Your task to perform on an android device: turn off location history Image 0: 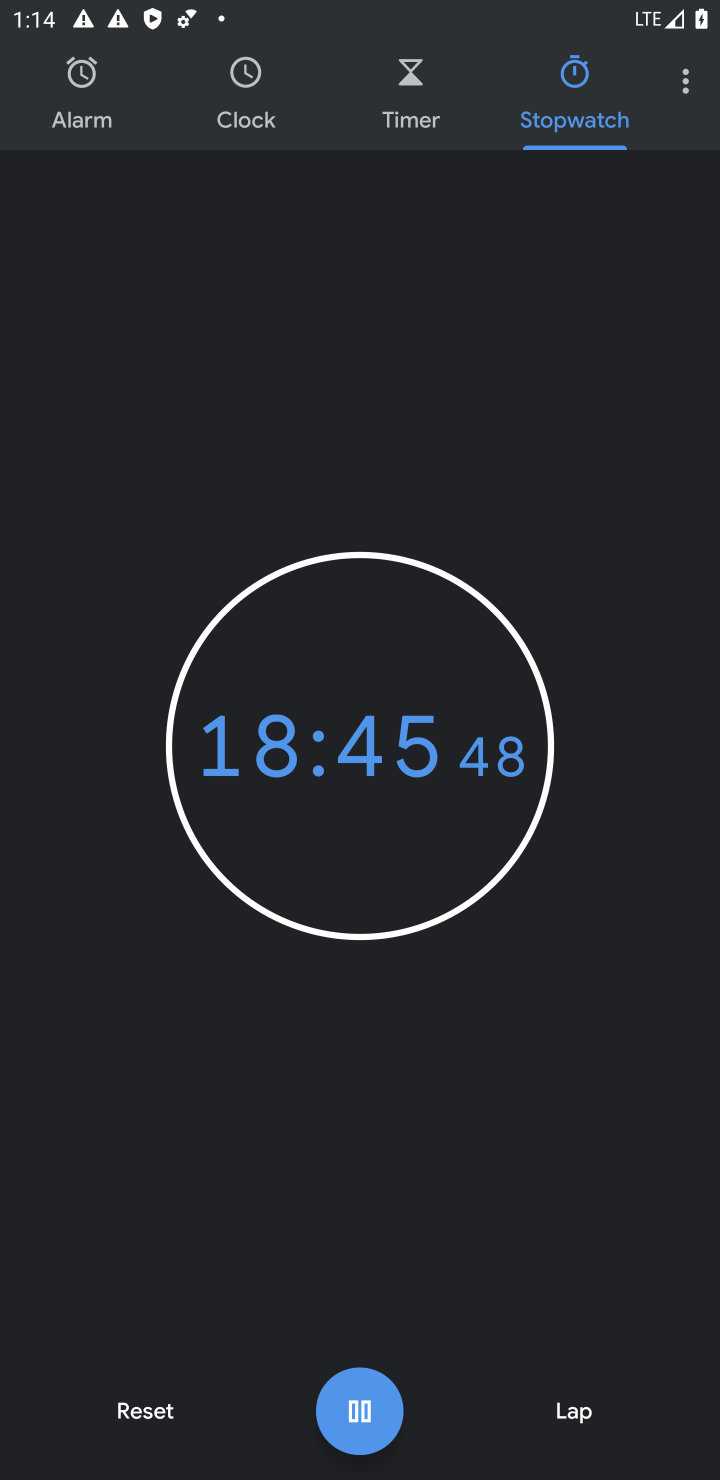
Step 0: press home button
Your task to perform on an android device: turn off location history Image 1: 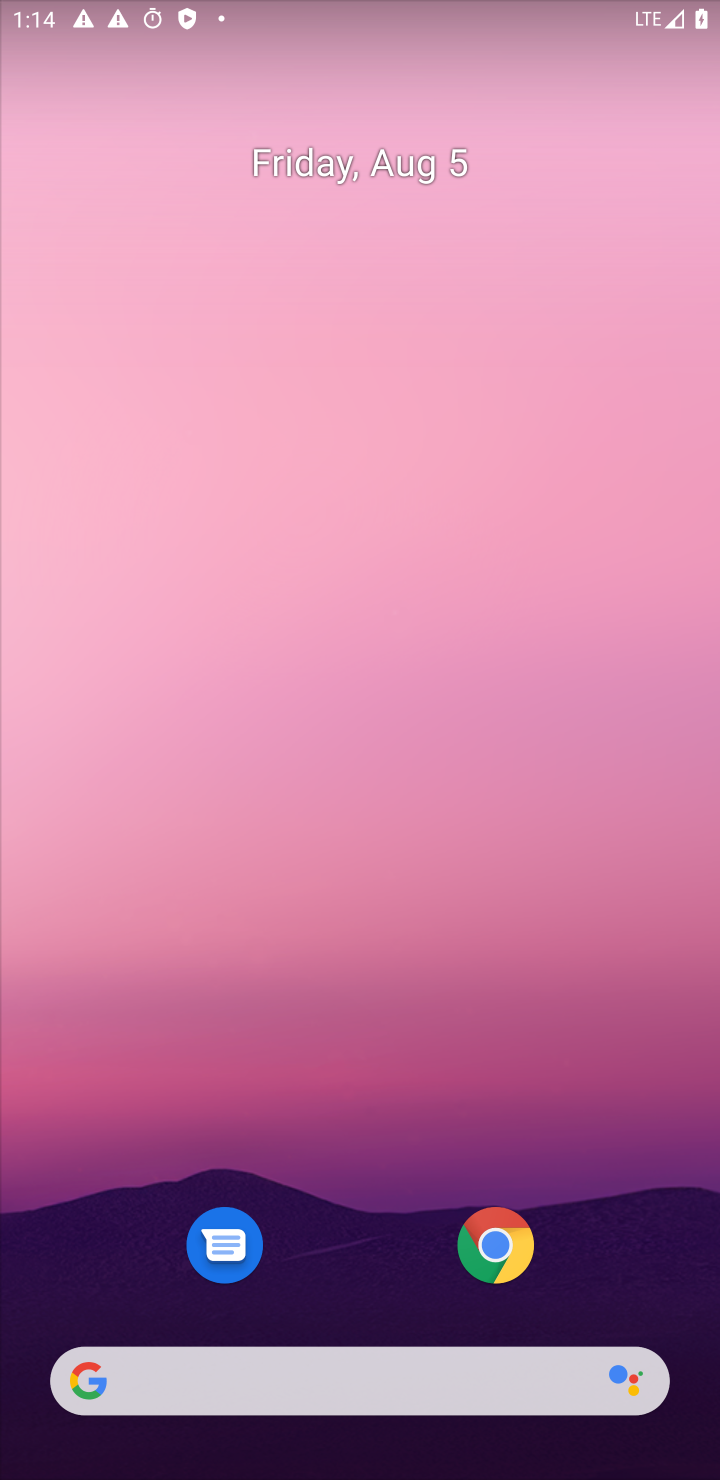
Step 1: drag from (412, 517) to (435, 448)
Your task to perform on an android device: turn off location history Image 2: 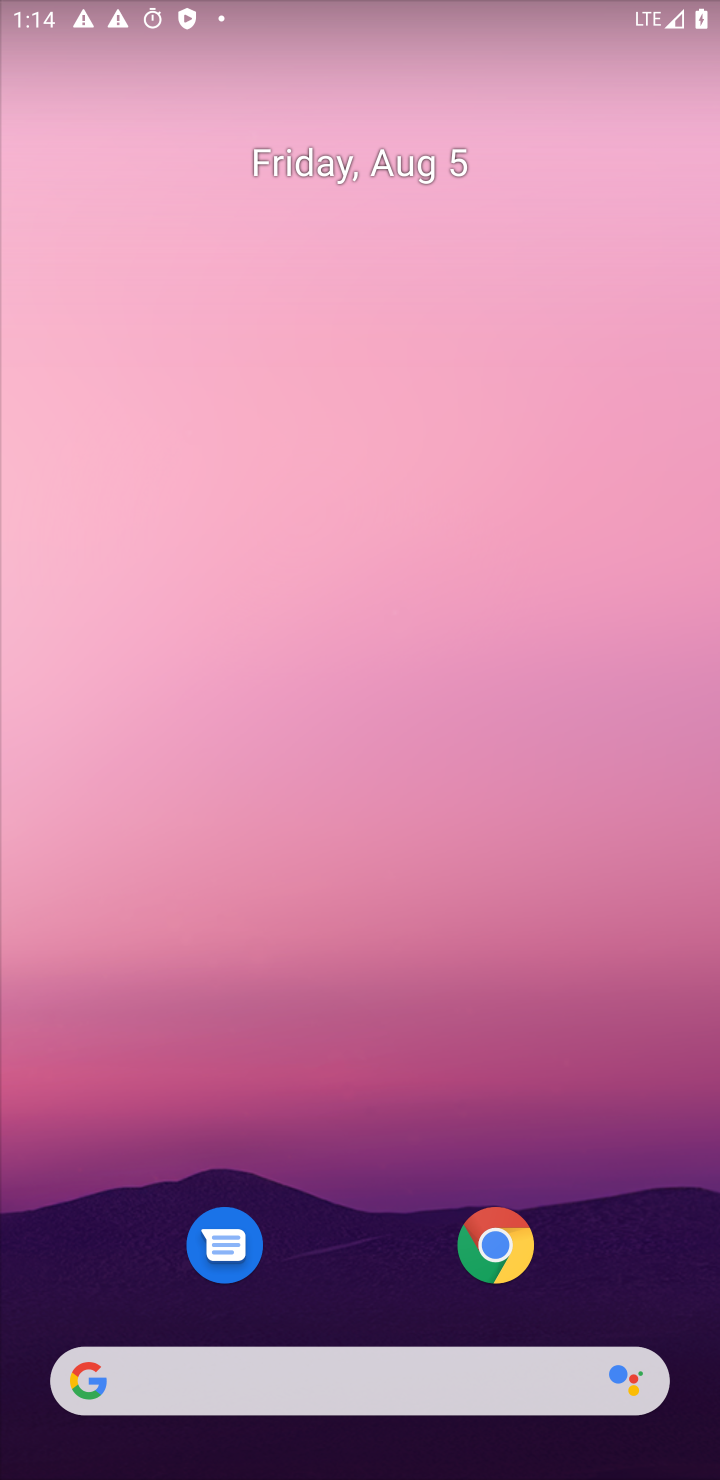
Step 2: drag from (426, 222) to (449, 89)
Your task to perform on an android device: turn off location history Image 3: 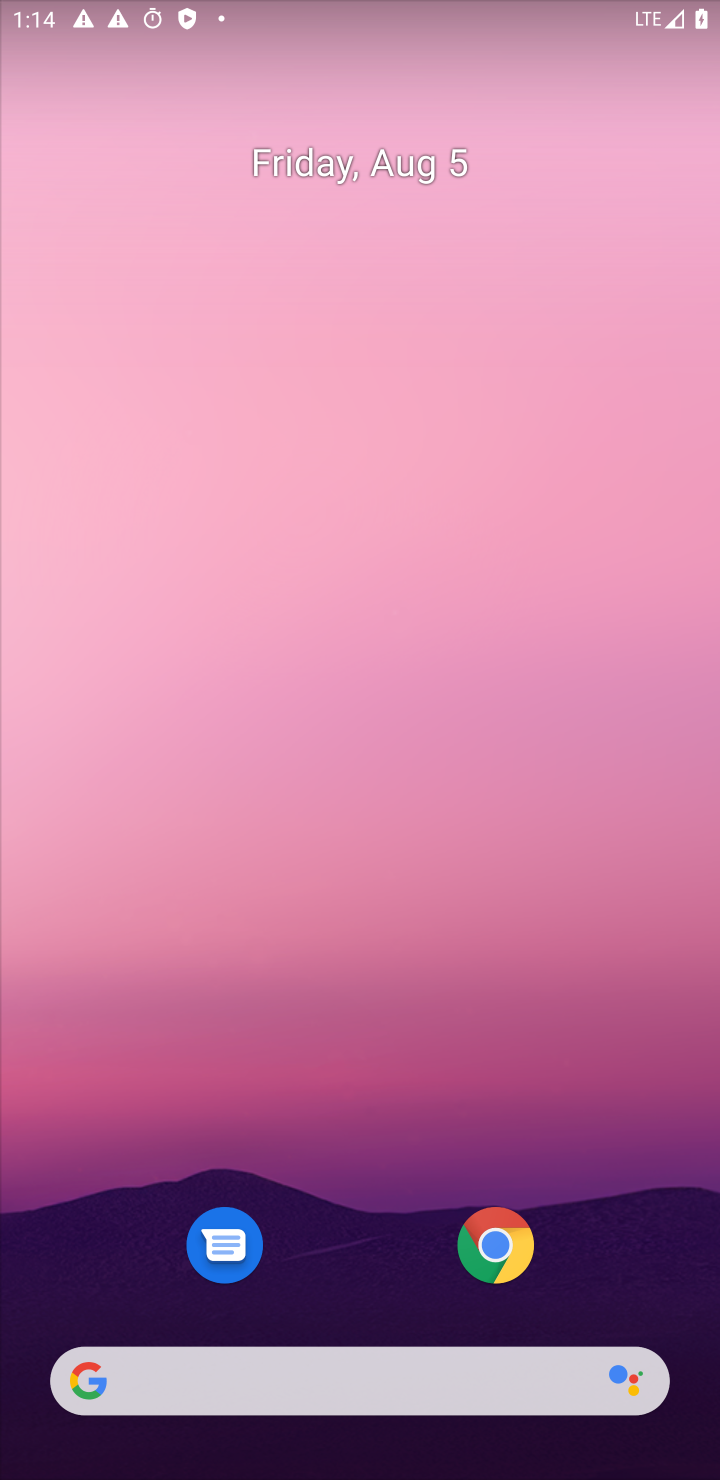
Step 3: drag from (357, 993) to (357, 215)
Your task to perform on an android device: turn off location history Image 4: 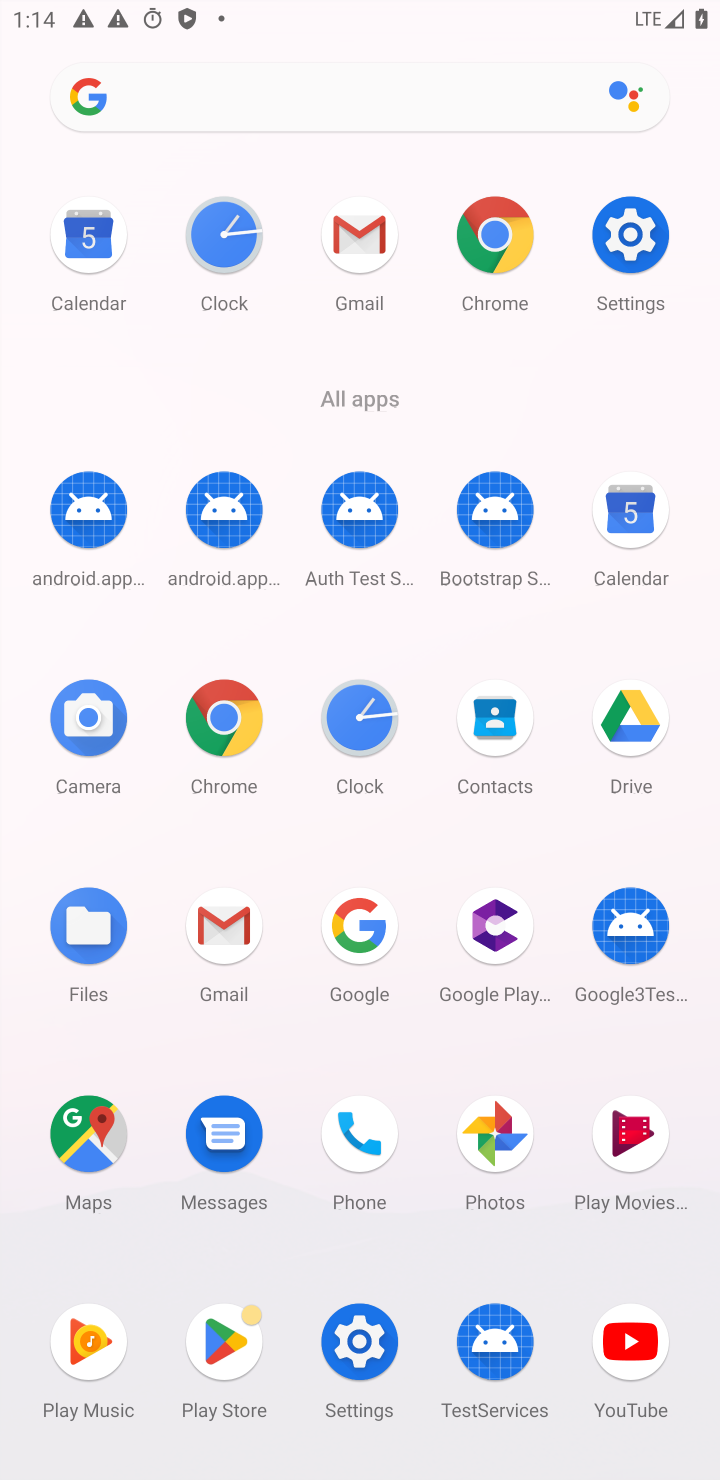
Step 4: click (637, 232)
Your task to perform on an android device: turn off location history Image 5: 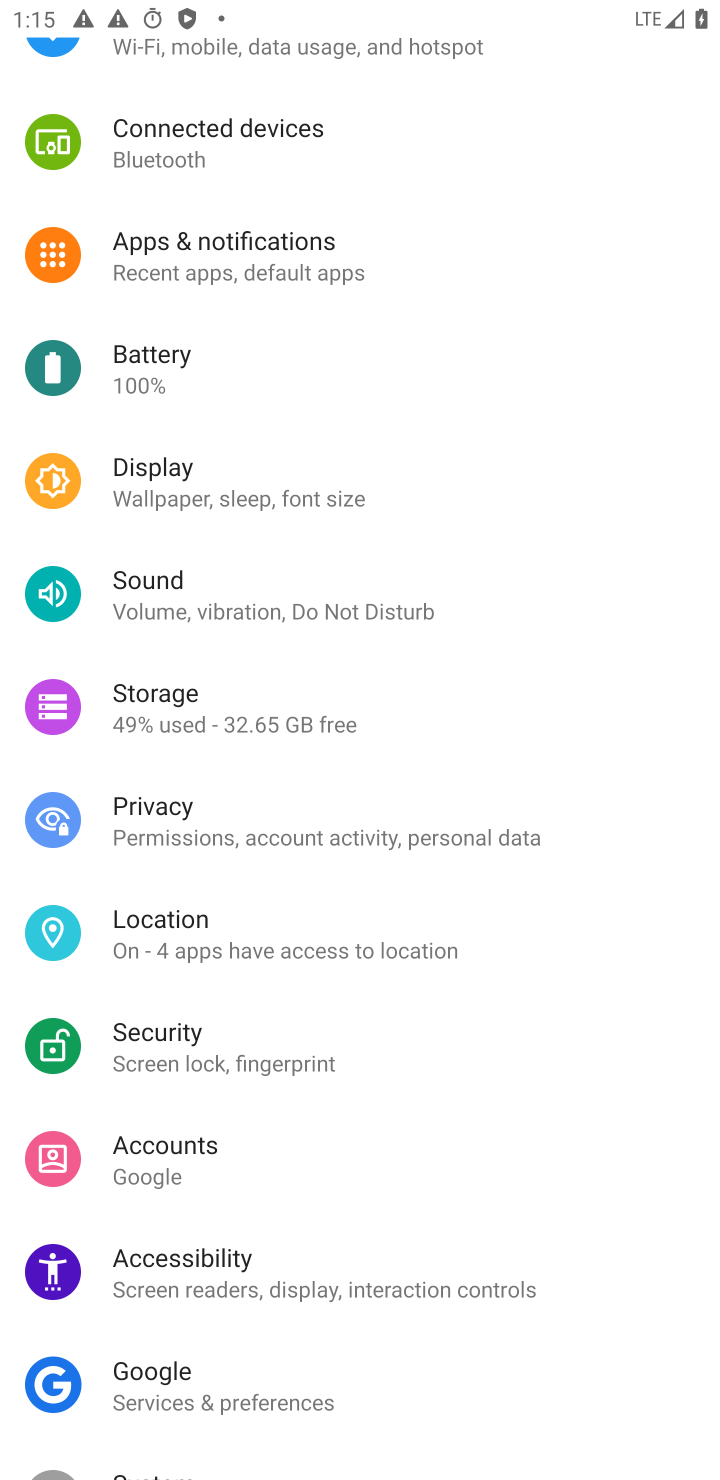
Step 5: drag from (553, 483) to (554, 889)
Your task to perform on an android device: turn off location history Image 6: 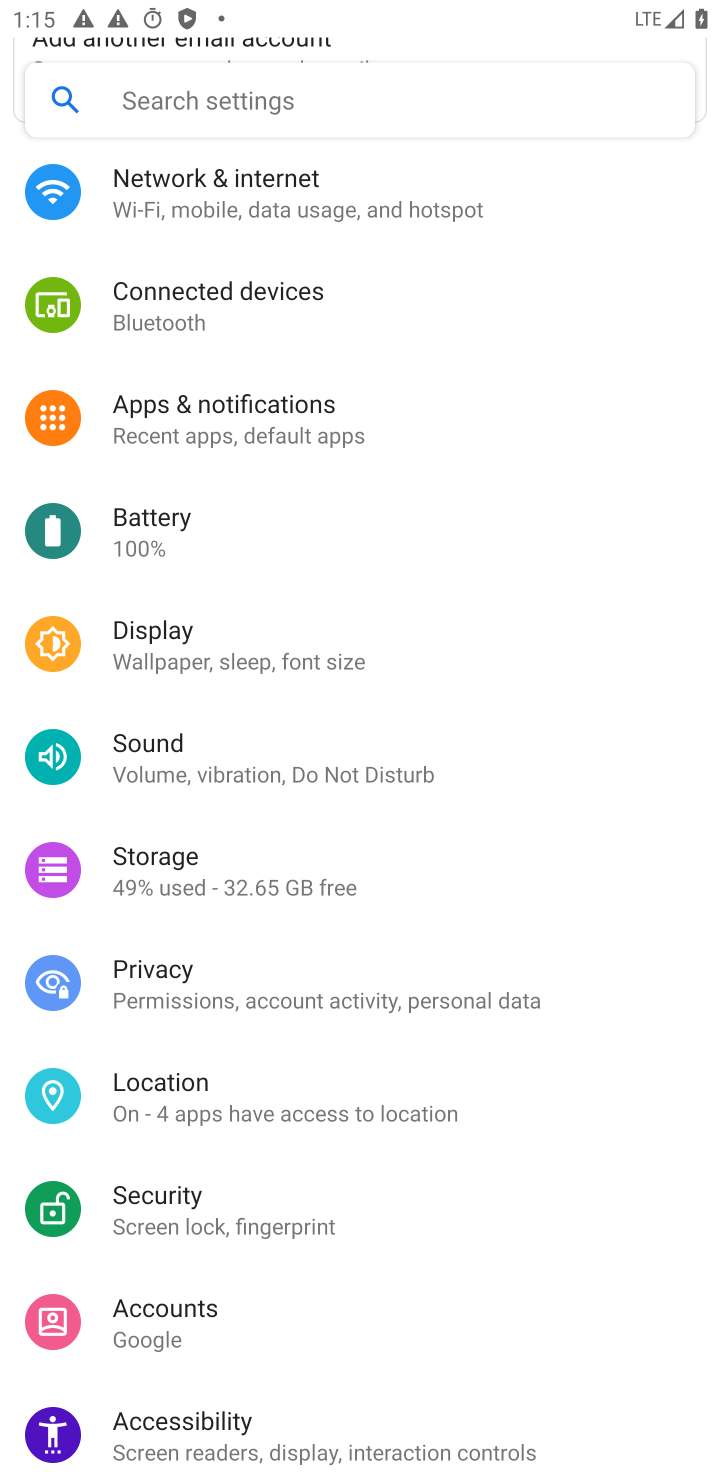
Step 6: click (187, 1100)
Your task to perform on an android device: turn off location history Image 7: 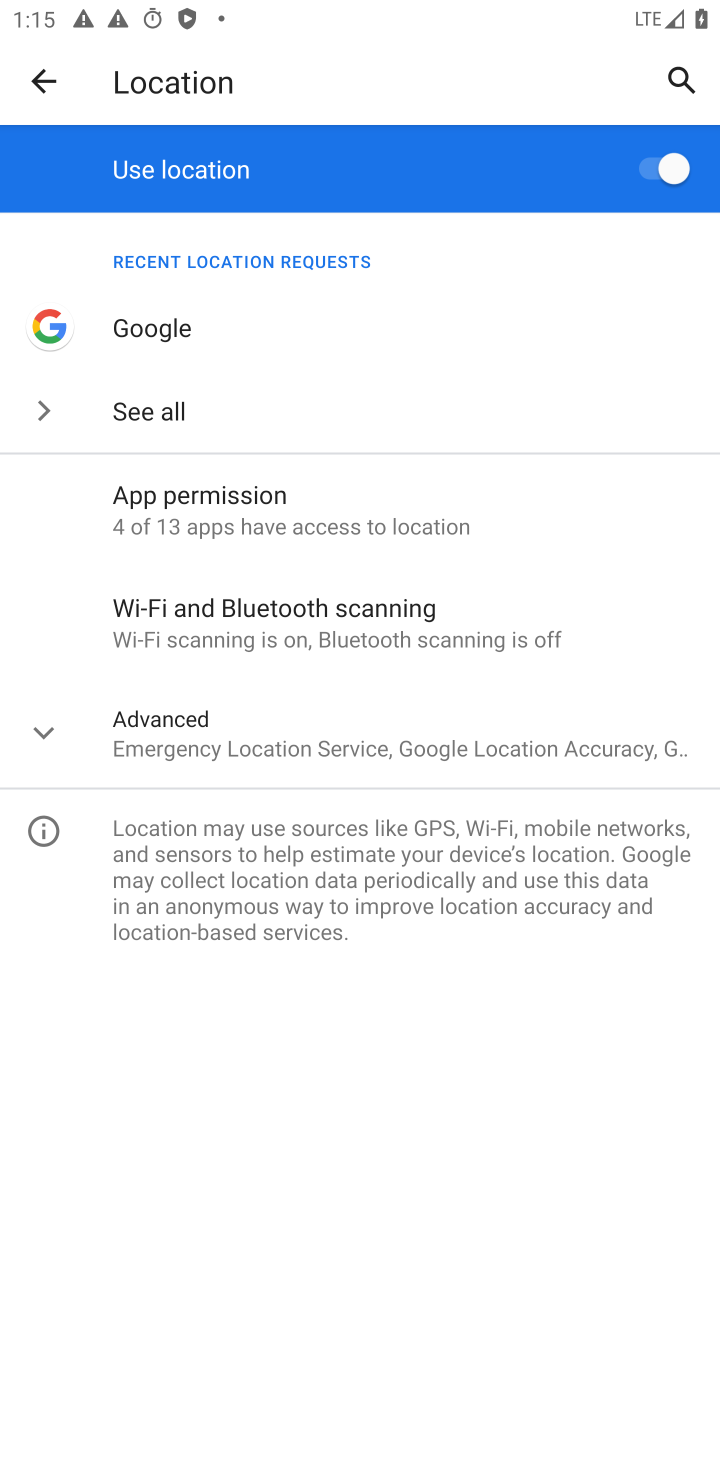
Step 7: click (218, 735)
Your task to perform on an android device: turn off location history Image 8: 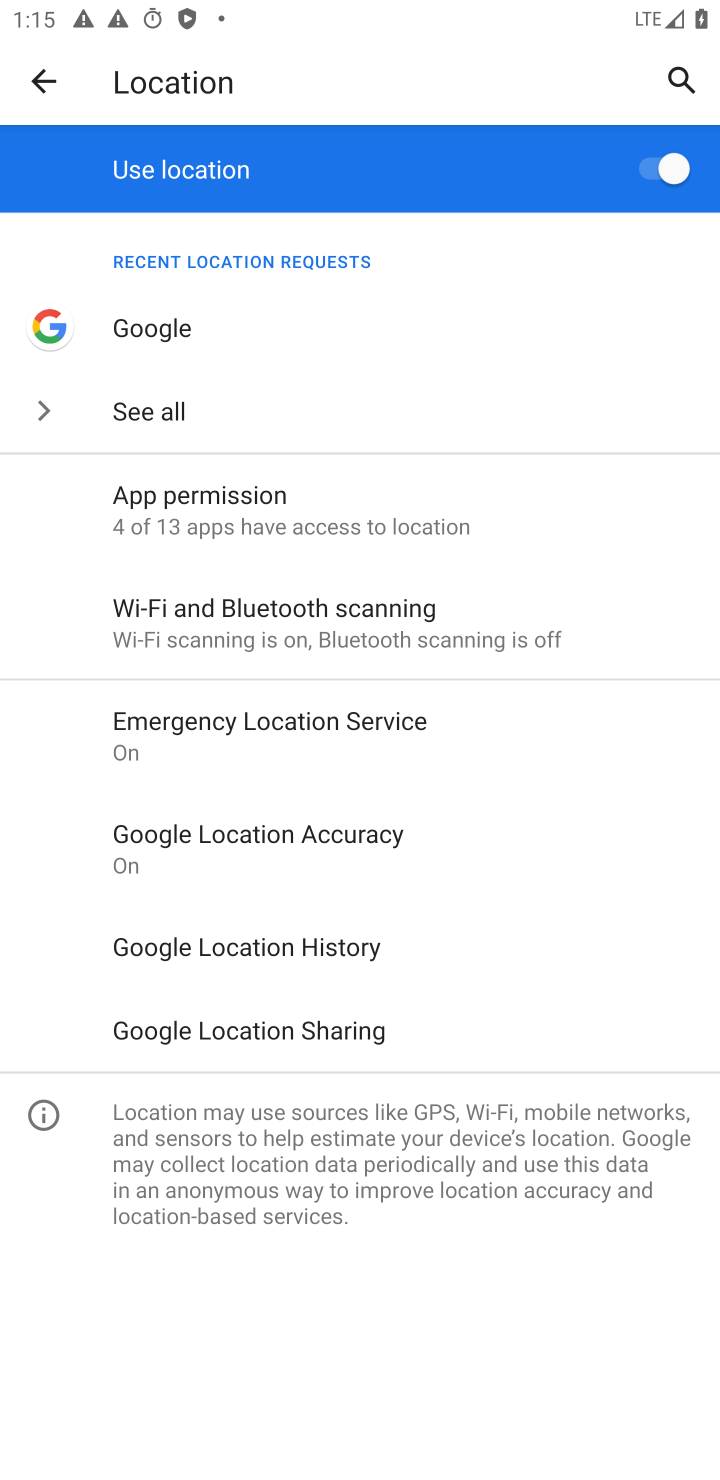
Step 8: click (304, 948)
Your task to perform on an android device: turn off location history Image 9: 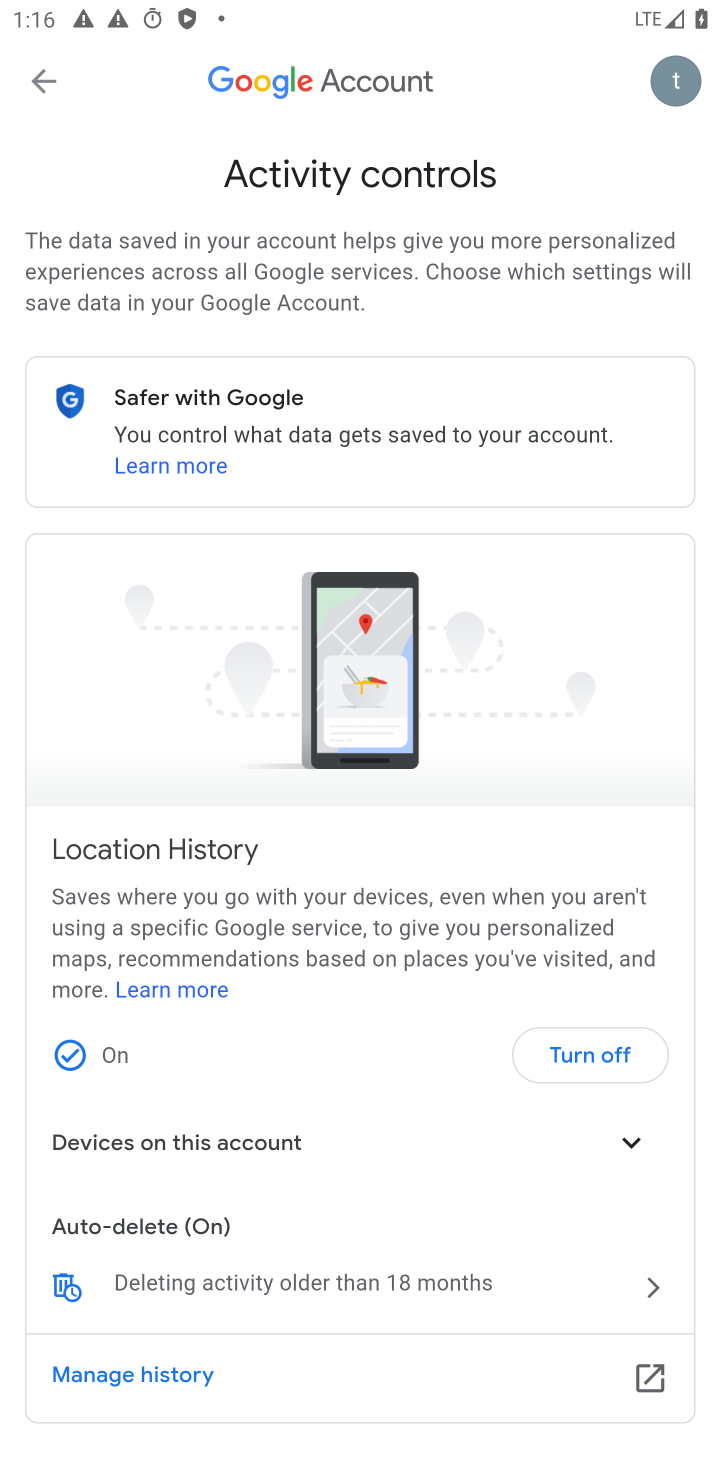
Step 9: click (599, 1053)
Your task to perform on an android device: turn off location history Image 10: 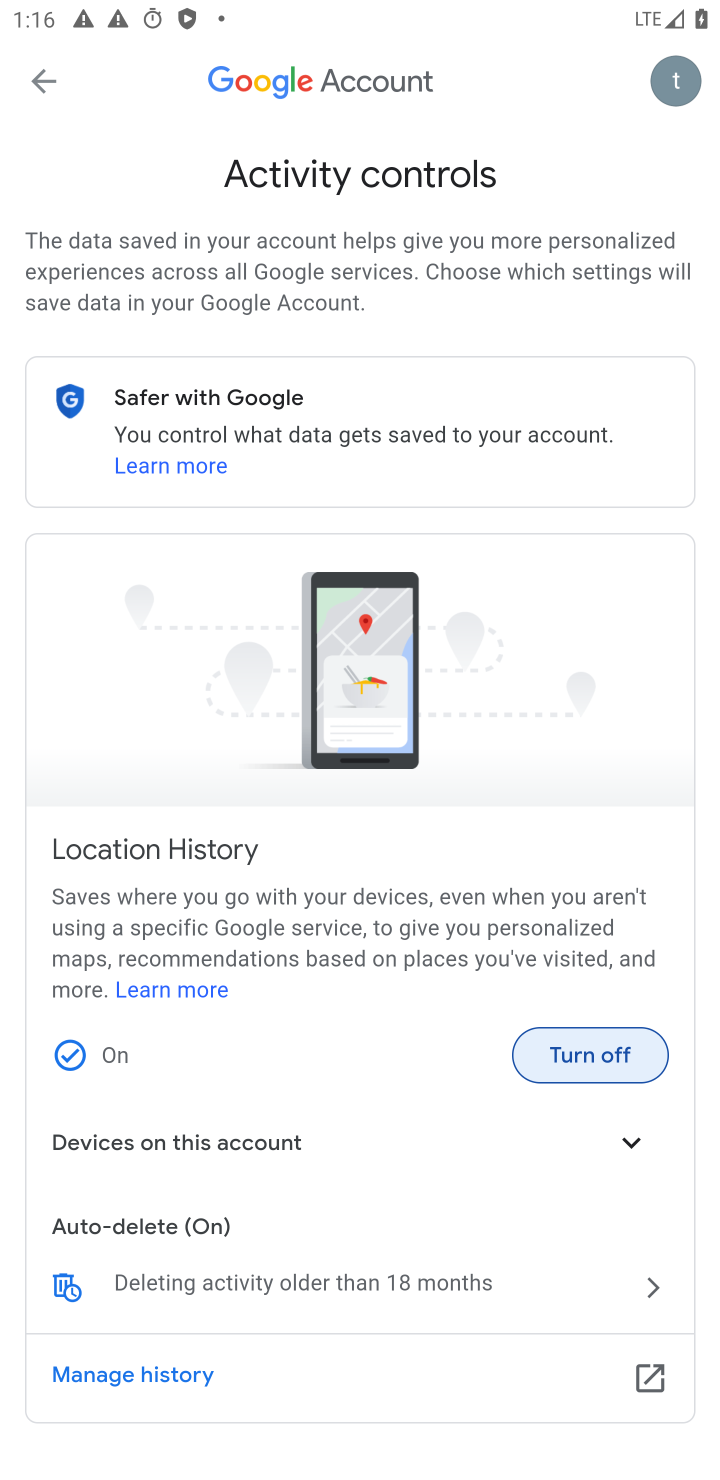
Step 10: drag from (525, 1052) to (478, 416)
Your task to perform on an android device: turn off location history Image 11: 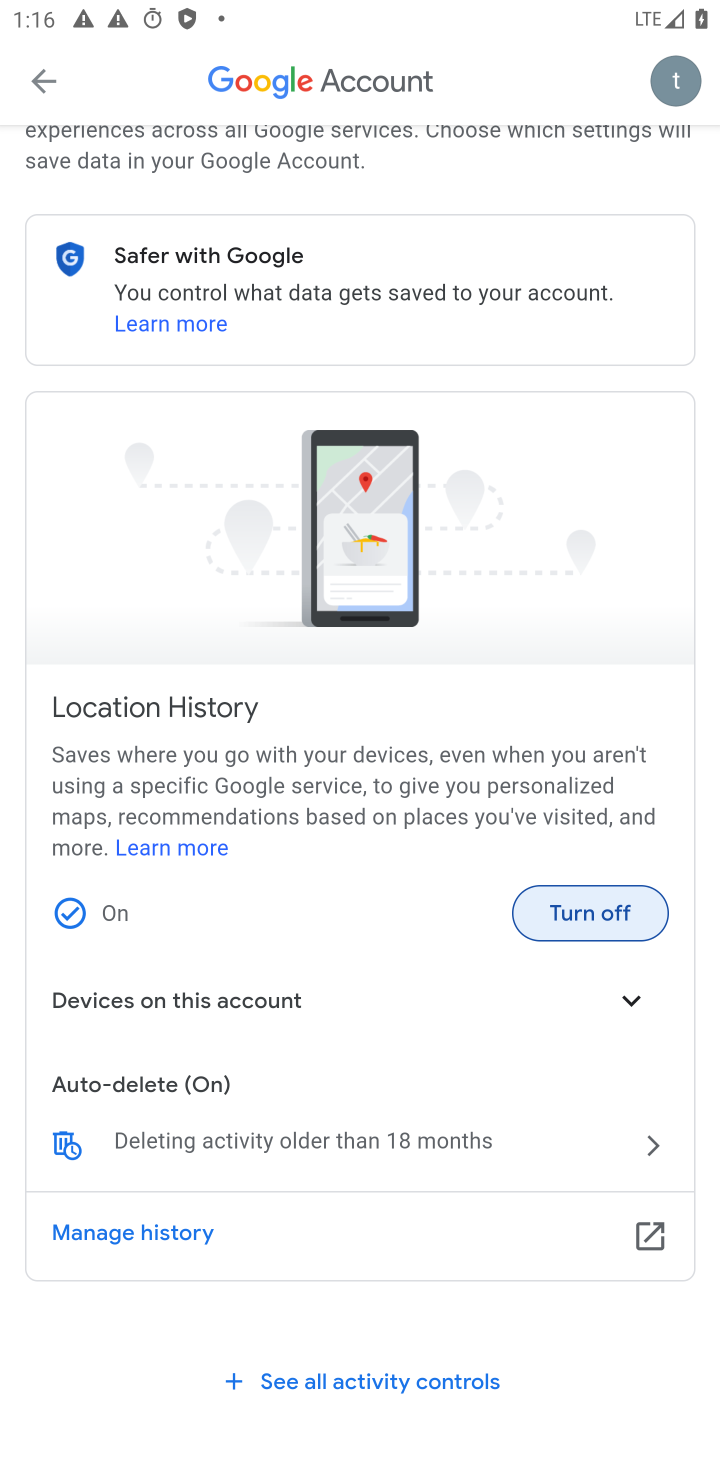
Step 11: click (597, 919)
Your task to perform on an android device: turn off location history Image 12: 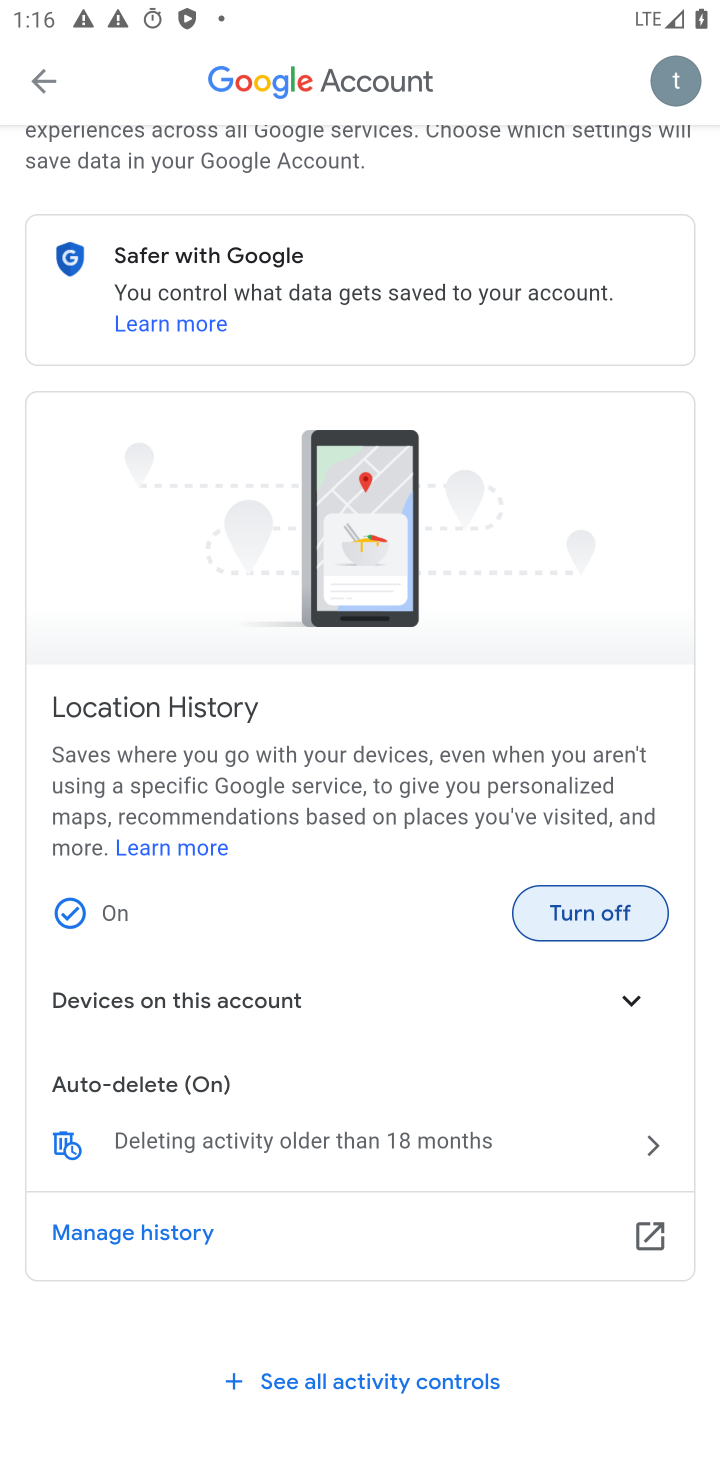
Step 12: click (576, 921)
Your task to perform on an android device: turn off location history Image 13: 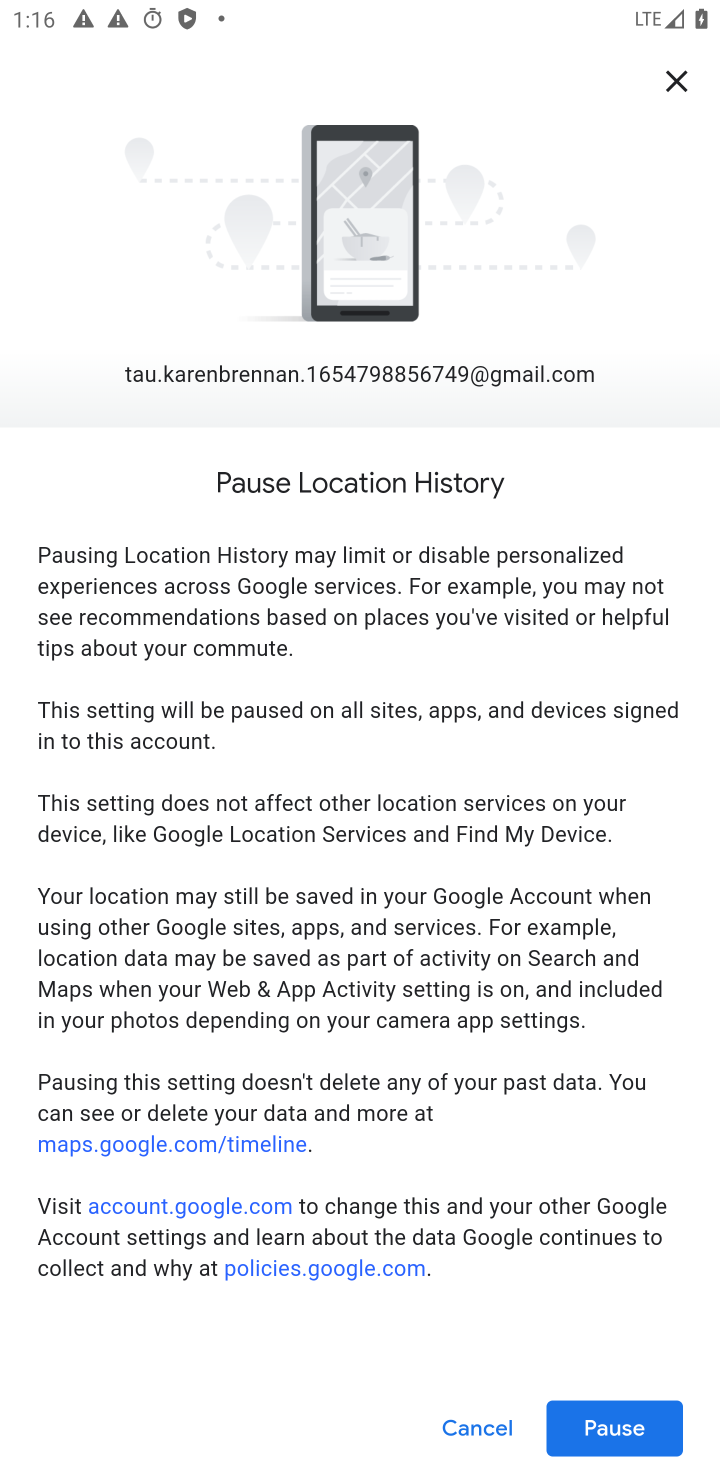
Step 13: click (654, 1424)
Your task to perform on an android device: turn off location history Image 14: 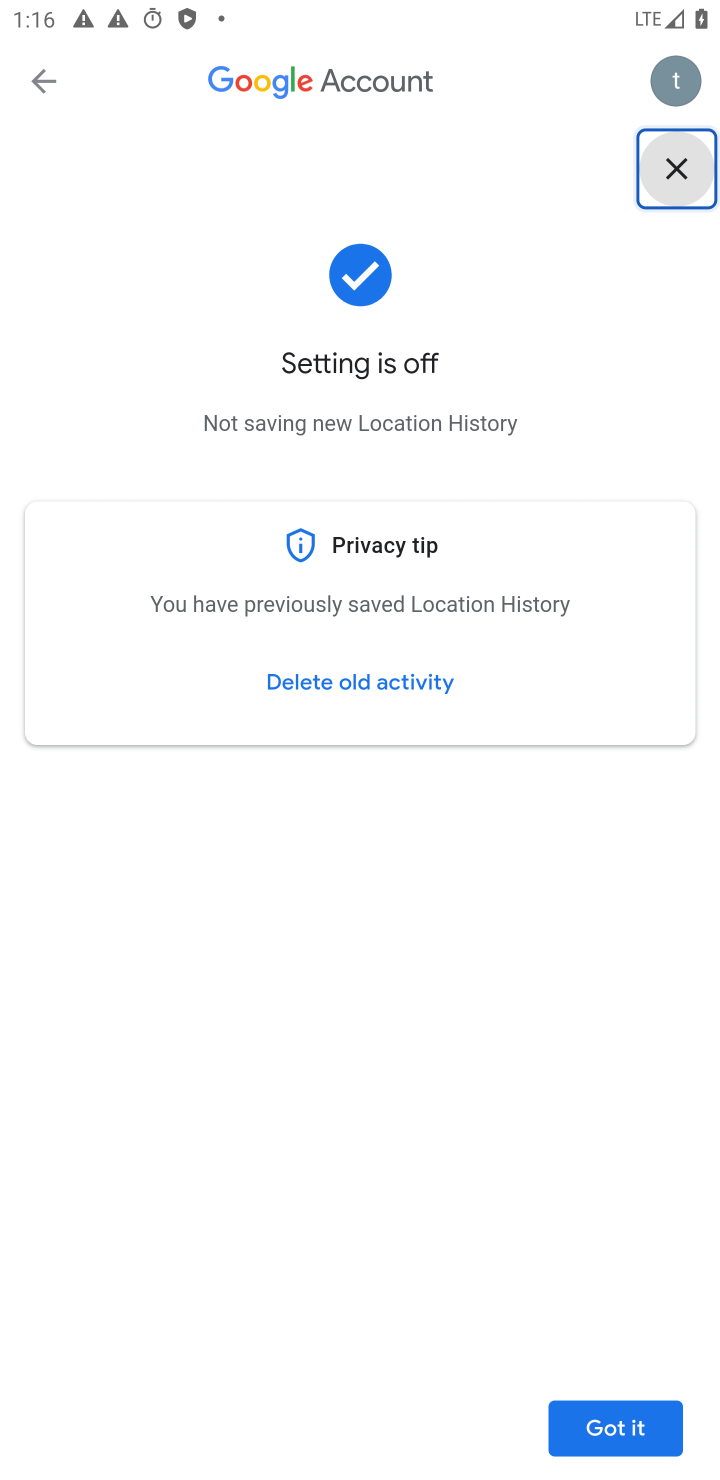
Step 14: click (615, 1430)
Your task to perform on an android device: turn off location history Image 15: 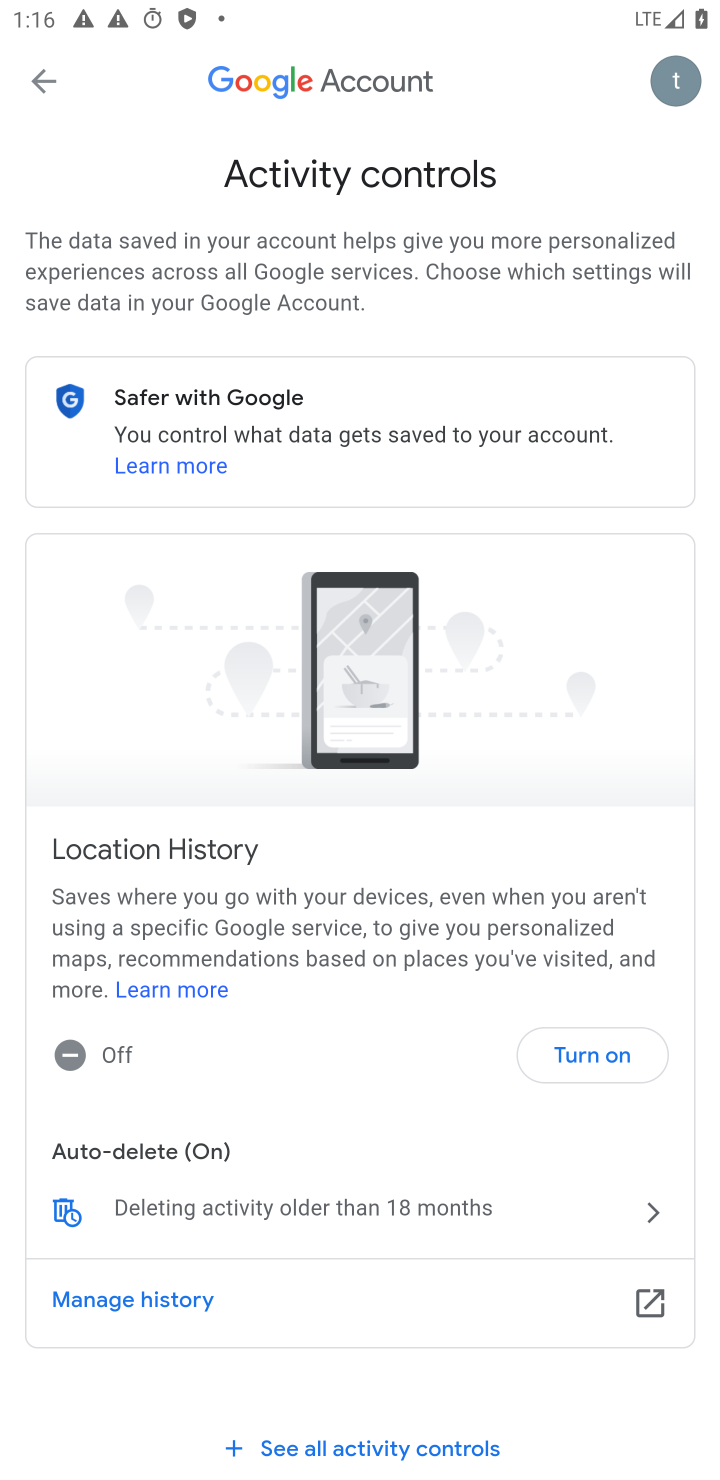
Step 15: task complete